Your task to perform on an android device: set default search engine in the chrome app Image 0: 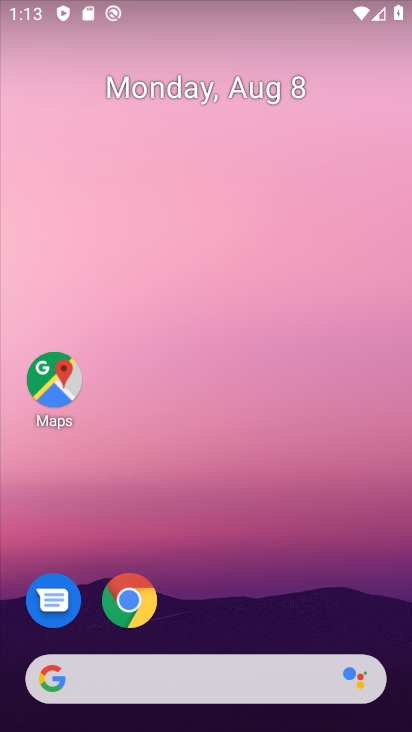
Step 0: press home button
Your task to perform on an android device: set default search engine in the chrome app Image 1: 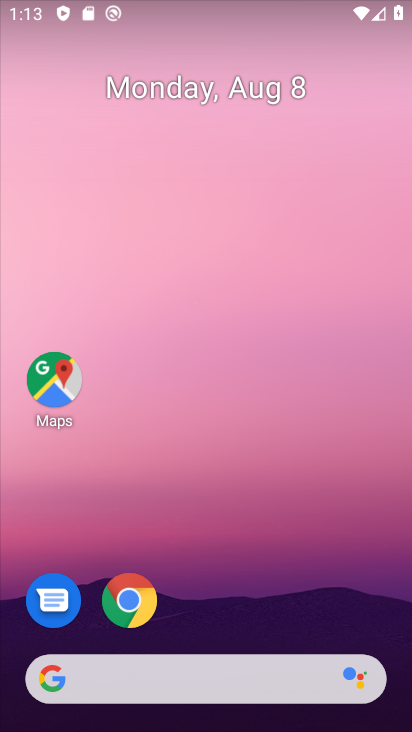
Step 1: drag from (301, 600) to (366, 0)
Your task to perform on an android device: set default search engine in the chrome app Image 2: 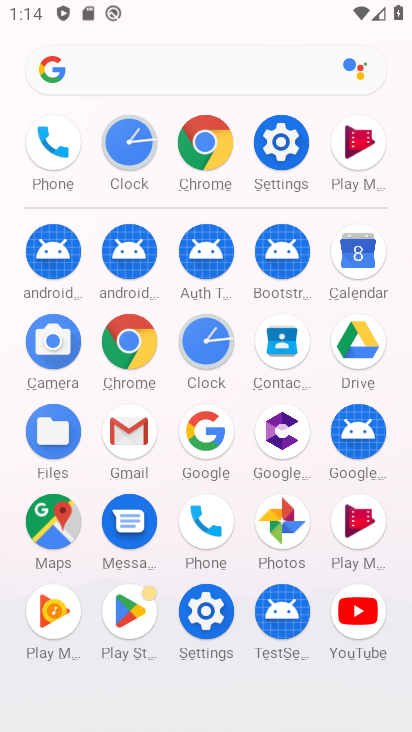
Step 2: click (198, 146)
Your task to perform on an android device: set default search engine in the chrome app Image 3: 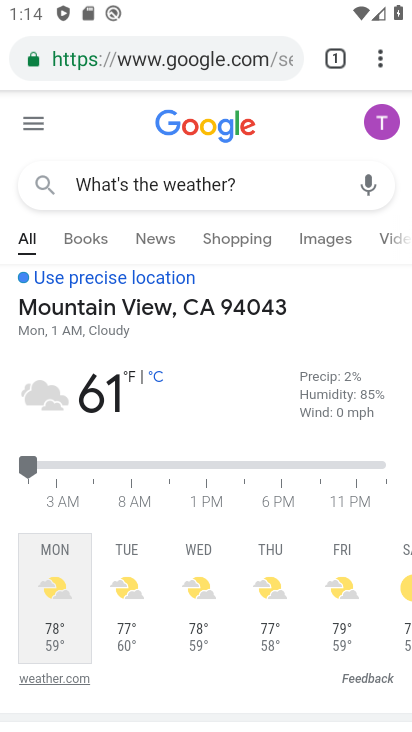
Step 3: drag from (382, 49) to (242, 628)
Your task to perform on an android device: set default search engine in the chrome app Image 4: 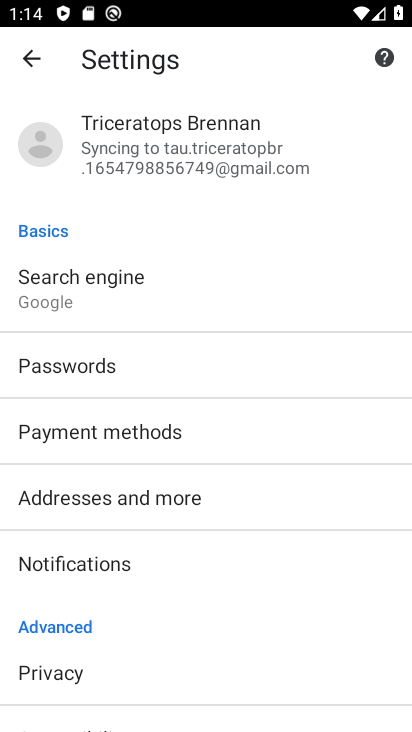
Step 4: click (87, 293)
Your task to perform on an android device: set default search engine in the chrome app Image 5: 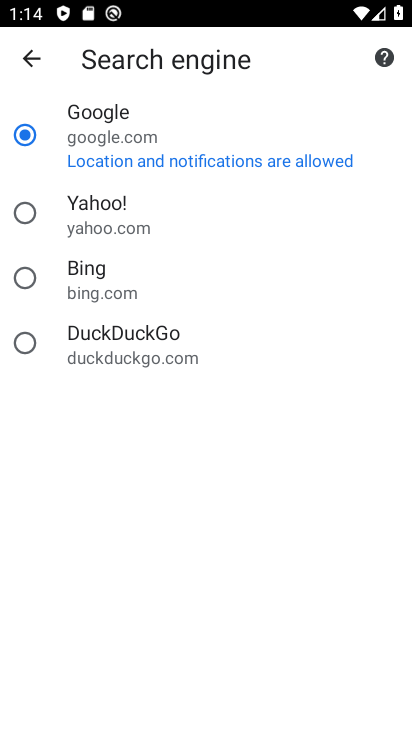
Step 5: task complete